Your task to perform on an android device: Go to display settings Image 0: 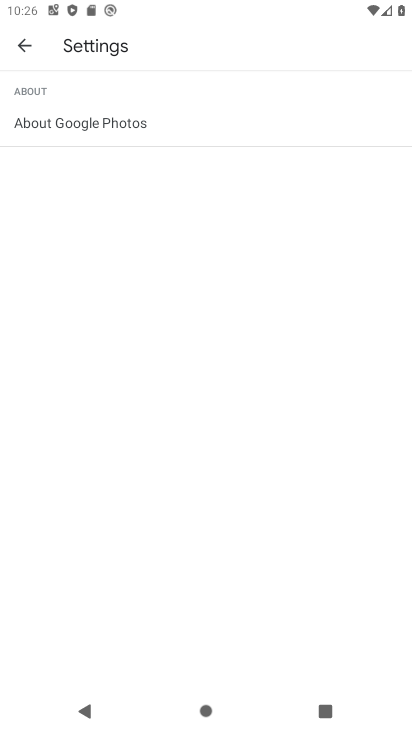
Step 0: press home button
Your task to perform on an android device: Go to display settings Image 1: 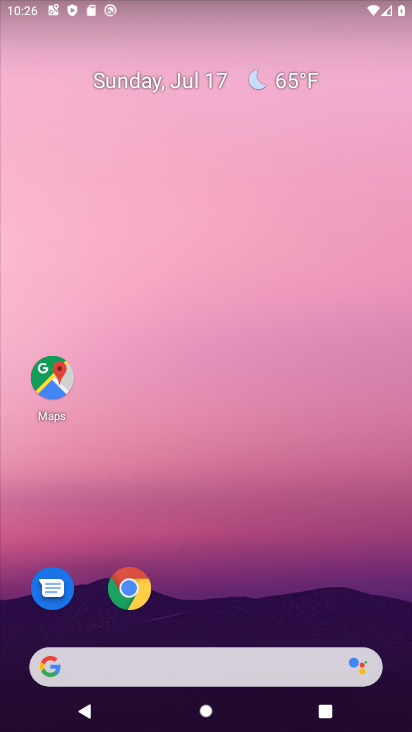
Step 1: drag from (227, 560) to (150, 30)
Your task to perform on an android device: Go to display settings Image 2: 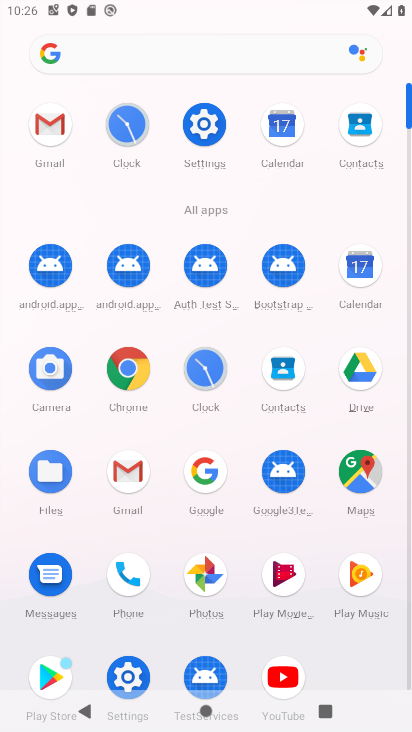
Step 2: click (210, 132)
Your task to perform on an android device: Go to display settings Image 3: 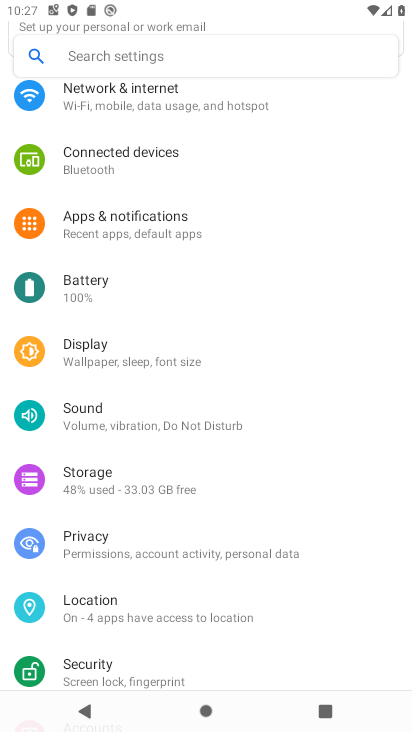
Step 3: click (86, 347)
Your task to perform on an android device: Go to display settings Image 4: 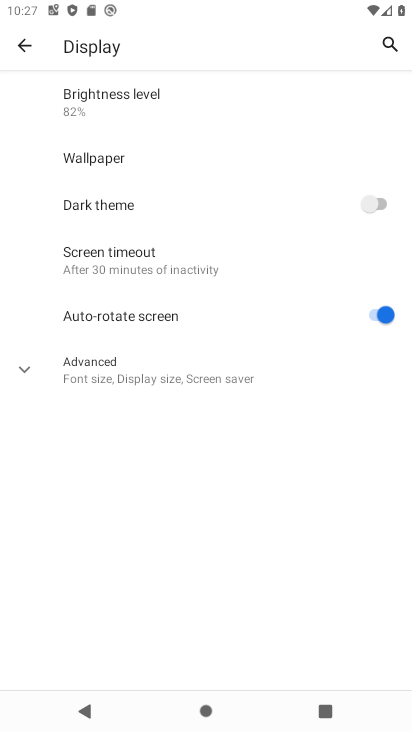
Step 4: task complete